Your task to perform on an android device: find which apps use the phone's location Image 0: 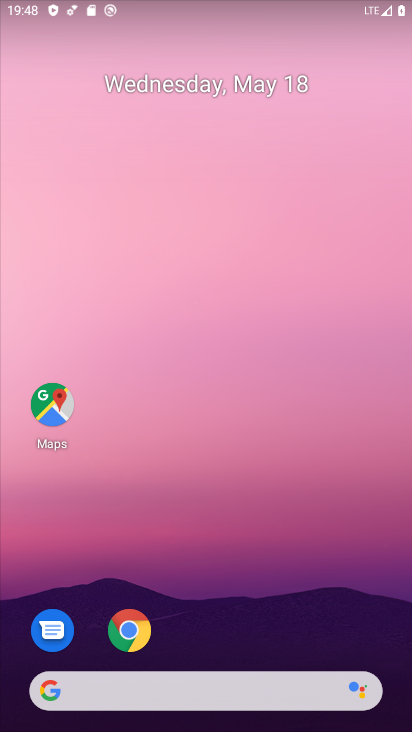
Step 0: press home button
Your task to perform on an android device: find which apps use the phone's location Image 1: 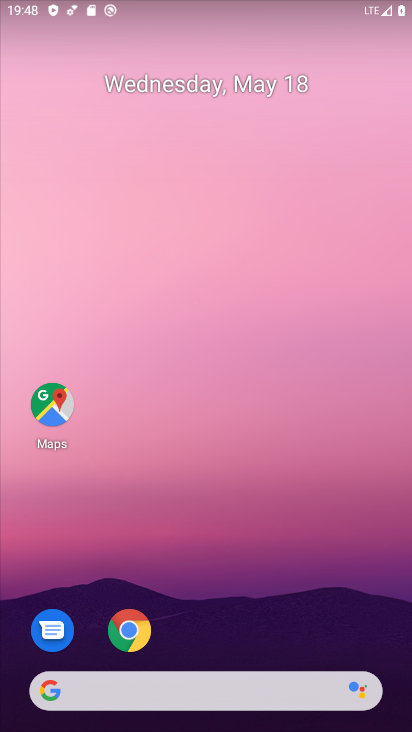
Step 1: drag from (203, 692) to (319, 190)
Your task to perform on an android device: find which apps use the phone's location Image 2: 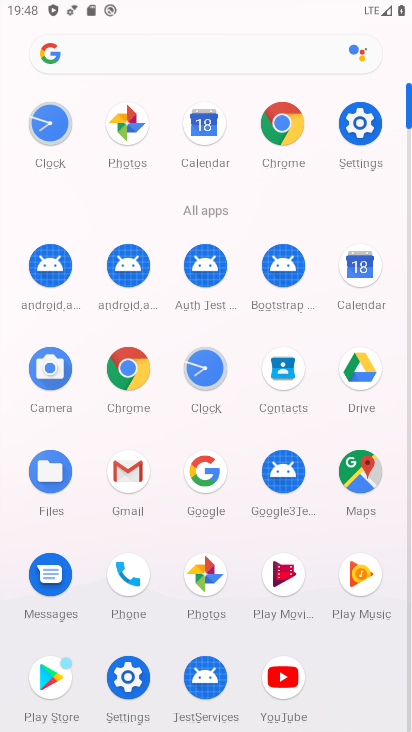
Step 2: click (354, 124)
Your task to perform on an android device: find which apps use the phone's location Image 3: 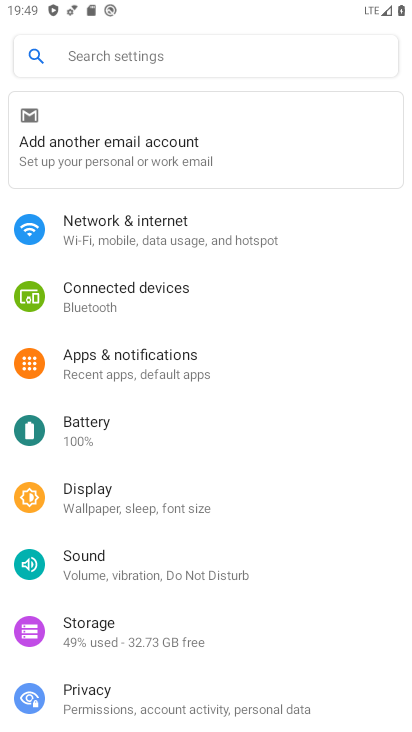
Step 3: drag from (237, 484) to (367, 188)
Your task to perform on an android device: find which apps use the phone's location Image 4: 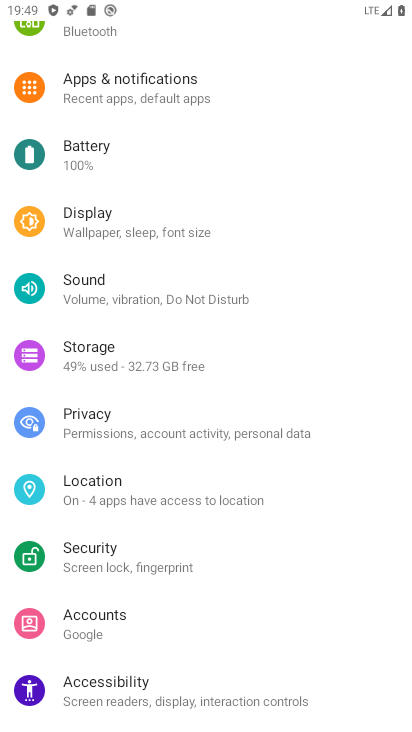
Step 4: click (141, 481)
Your task to perform on an android device: find which apps use the phone's location Image 5: 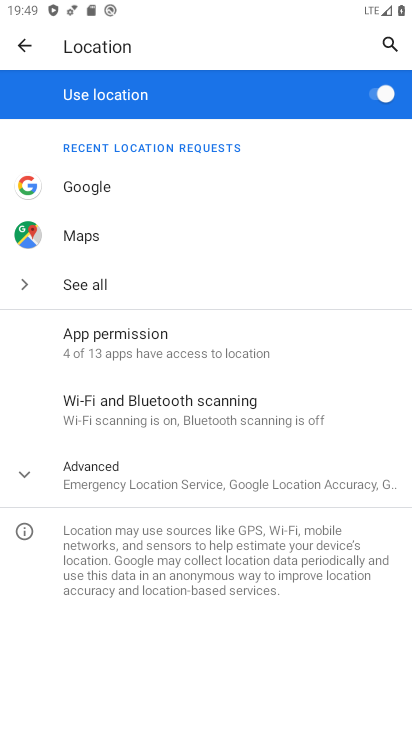
Step 5: click (118, 339)
Your task to perform on an android device: find which apps use the phone's location Image 6: 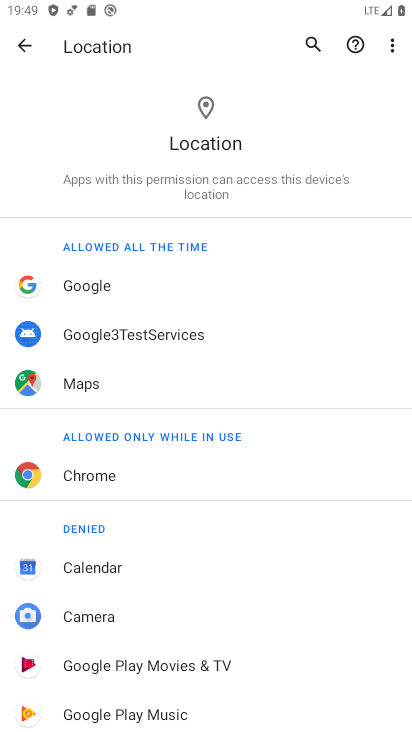
Step 6: drag from (220, 625) to (323, 228)
Your task to perform on an android device: find which apps use the phone's location Image 7: 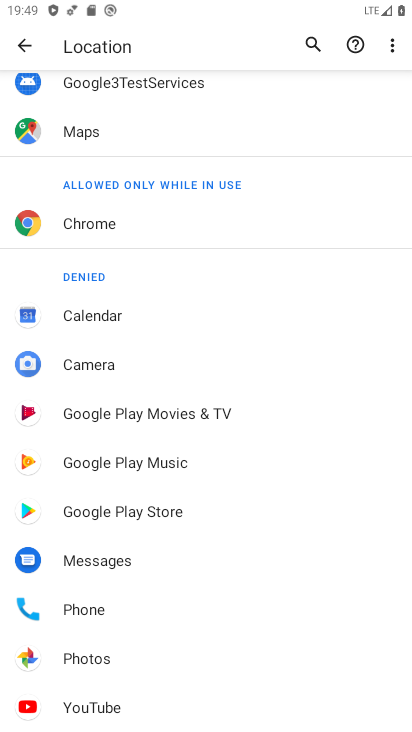
Step 7: click (108, 608)
Your task to perform on an android device: find which apps use the phone's location Image 8: 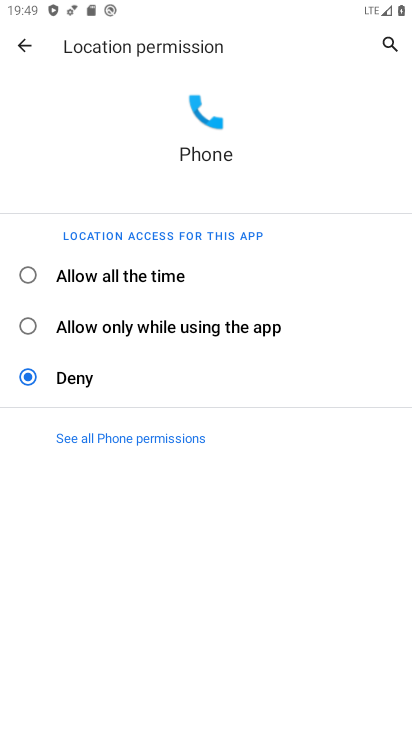
Step 8: task complete